Your task to perform on an android device: find photos in the google photos app Image 0: 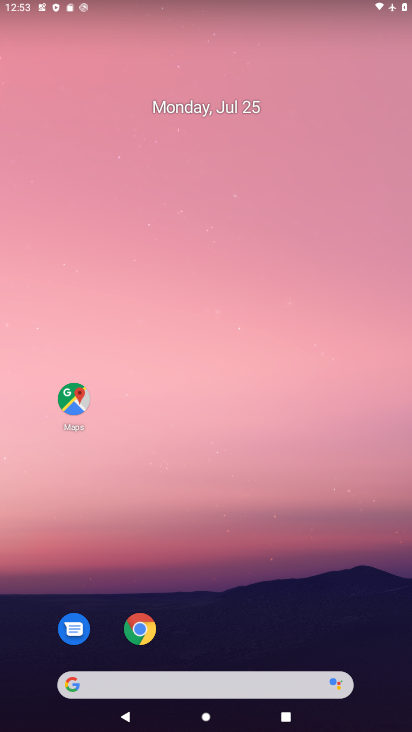
Step 0: drag from (271, 645) to (270, 156)
Your task to perform on an android device: find photos in the google photos app Image 1: 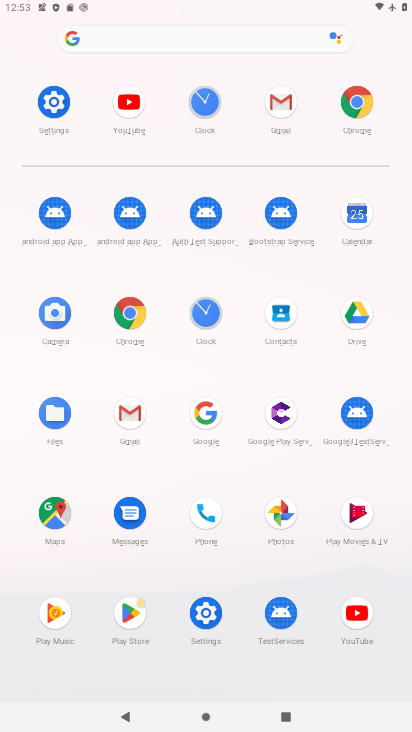
Step 1: click (267, 534)
Your task to perform on an android device: find photos in the google photos app Image 2: 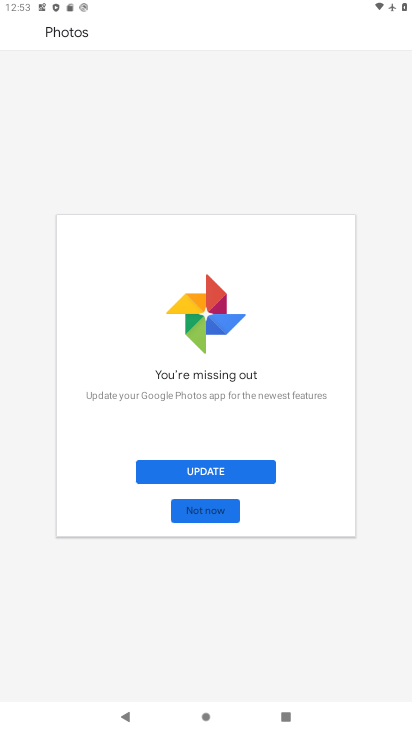
Step 2: task complete